Your task to perform on an android device: Open internet settings Image 0: 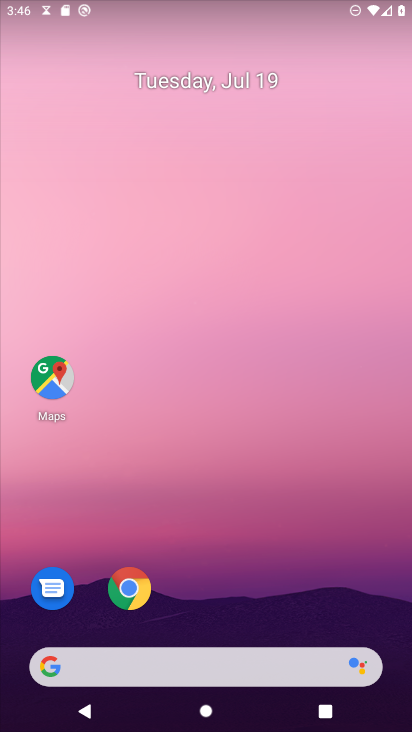
Step 0: drag from (222, 567) to (198, 34)
Your task to perform on an android device: Open internet settings Image 1: 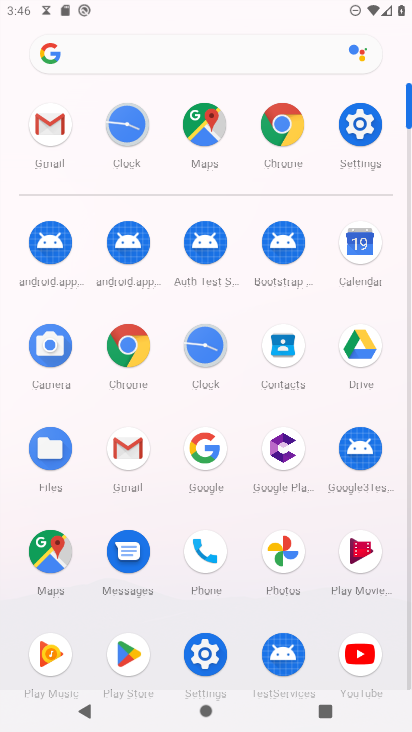
Step 1: click (351, 123)
Your task to perform on an android device: Open internet settings Image 2: 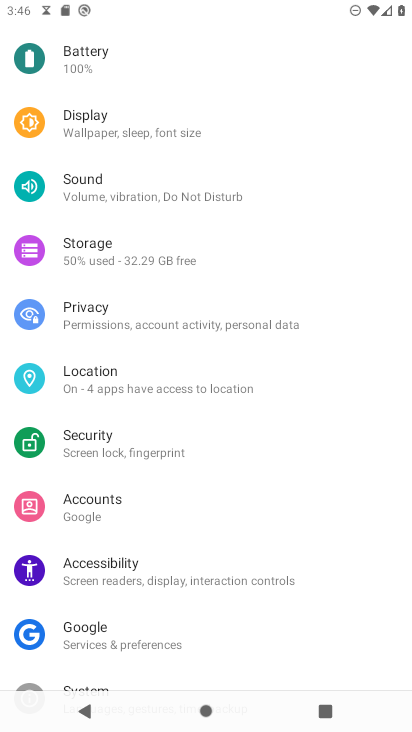
Step 2: drag from (138, 571) to (207, 53)
Your task to perform on an android device: Open internet settings Image 3: 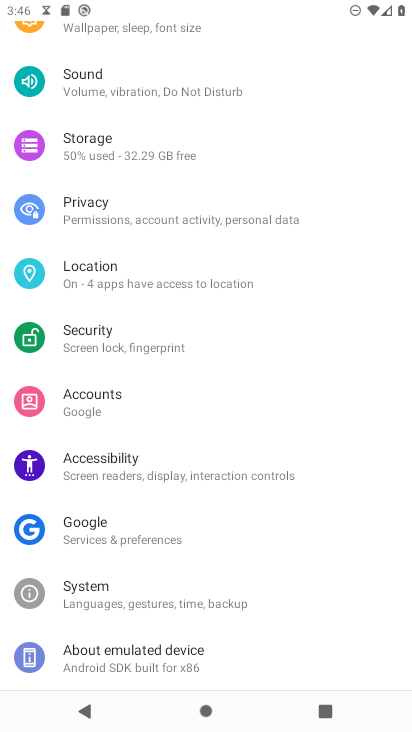
Step 3: drag from (164, 293) to (164, 652)
Your task to perform on an android device: Open internet settings Image 4: 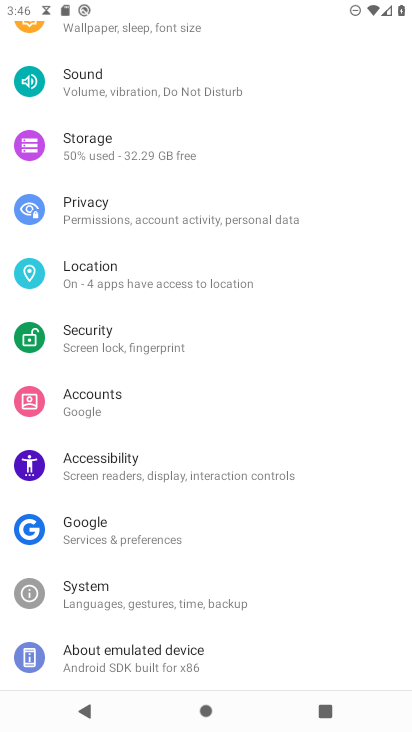
Step 4: drag from (202, 156) to (161, 630)
Your task to perform on an android device: Open internet settings Image 5: 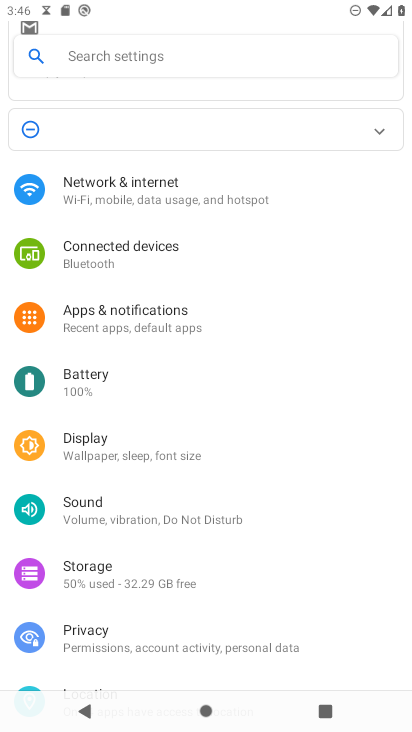
Step 5: click (105, 196)
Your task to perform on an android device: Open internet settings Image 6: 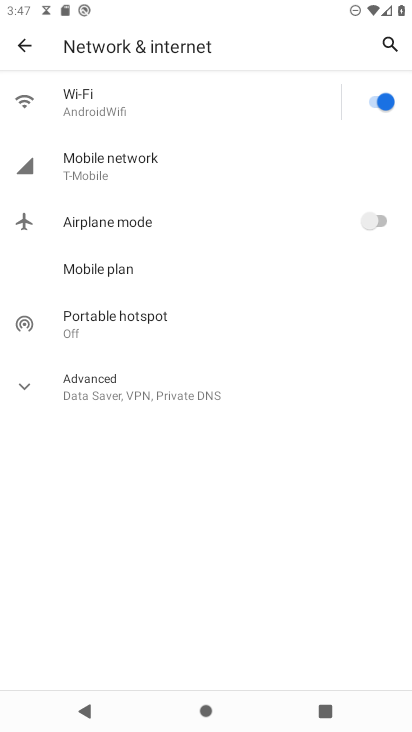
Step 6: task complete